Your task to perform on an android device: Do I have any events tomorrow? Image 0: 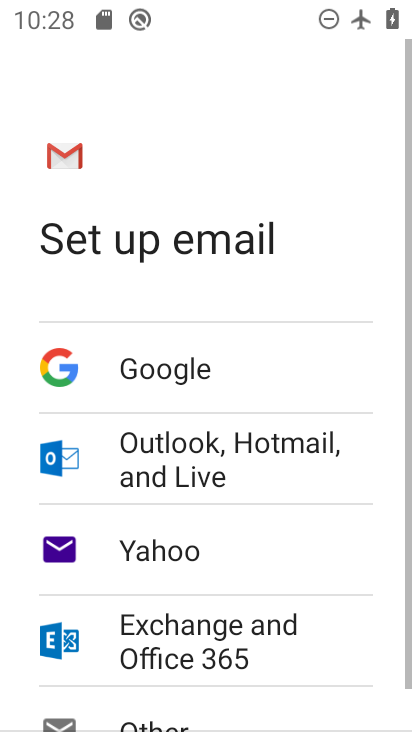
Step 0: press home button
Your task to perform on an android device: Do I have any events tomorrow? Image 1: 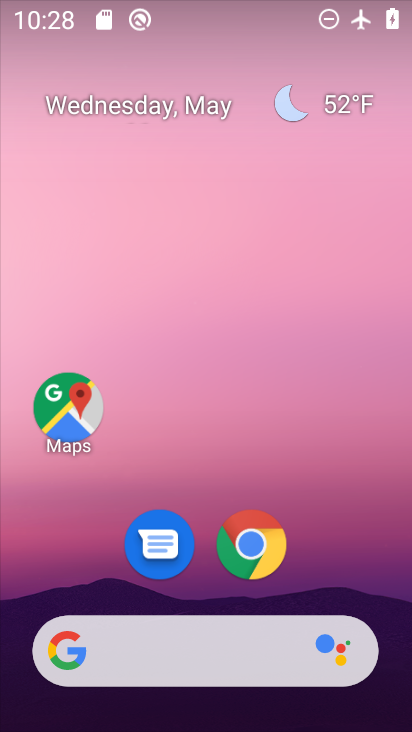
Step 1: click (179, 113)
Your task to perform on an android device: Do I have any events tomorrow? Image 2: 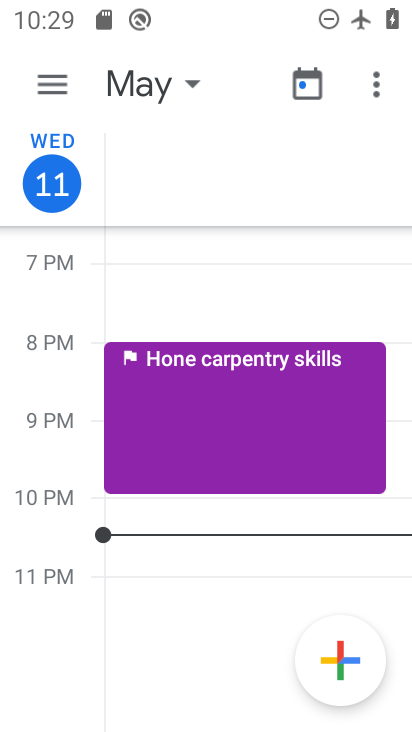
Step 2: click (58, 83)
Your task to perform on an android device: Do I have any events tomorrow? Image 3: 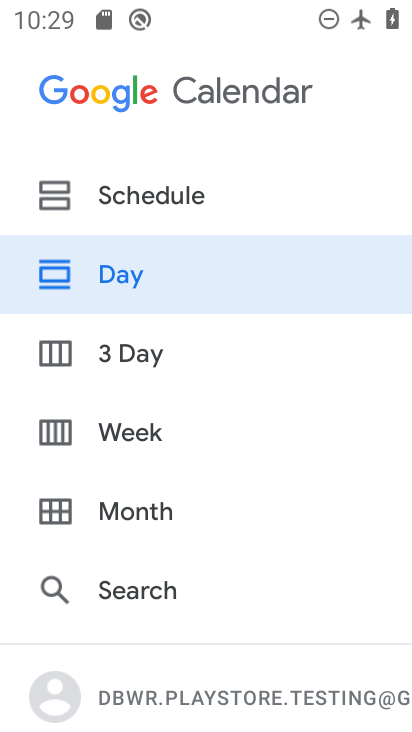
Step 3: drag from (261, 522) to (265, 11)
Your task to perform on an android device: Do I have any events tomorrow? Image 4: 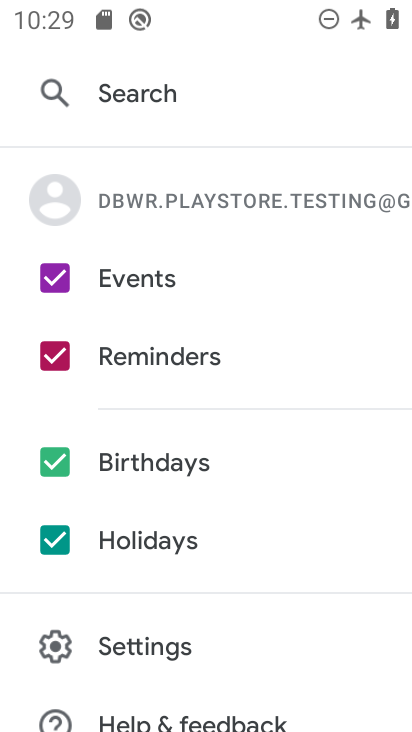
Step 4: drag from (228, 606) to (236, 363)
Your task to perform on an android device: Do I have any events tomorrow? Image 5: 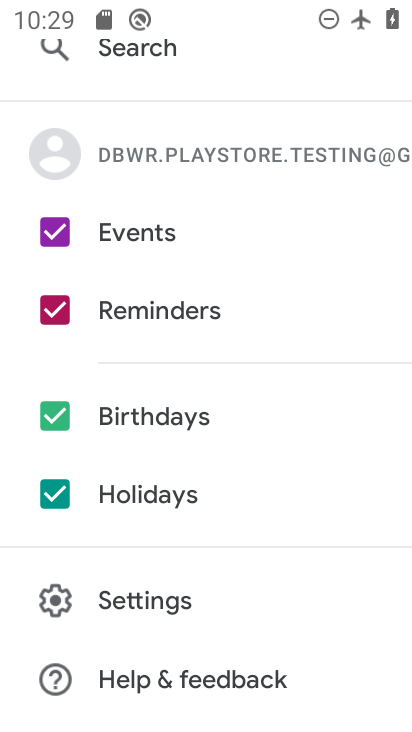
Step 5: click (55, 299)
Your task to perform on an android device: Do I have any events tomorrow? Image 6: 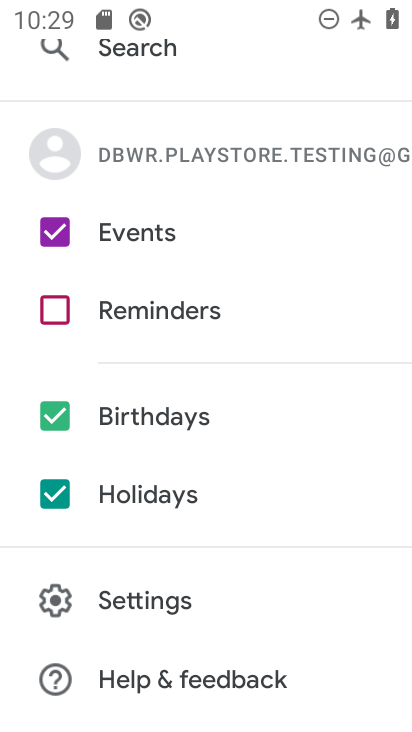
Step 6: click (57, 417)
Your task to perform on an android device: Do I have any events tomorrow? Image 7: 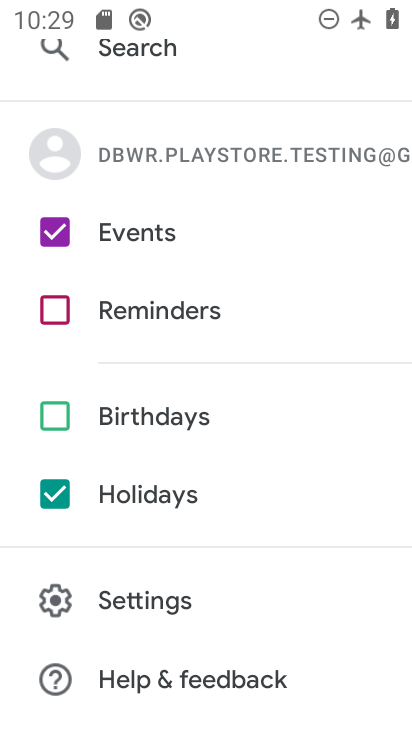
Step 7: click (56, 504)
Your task to perform on an android device: Do I have any events tomorrow? Image 8: 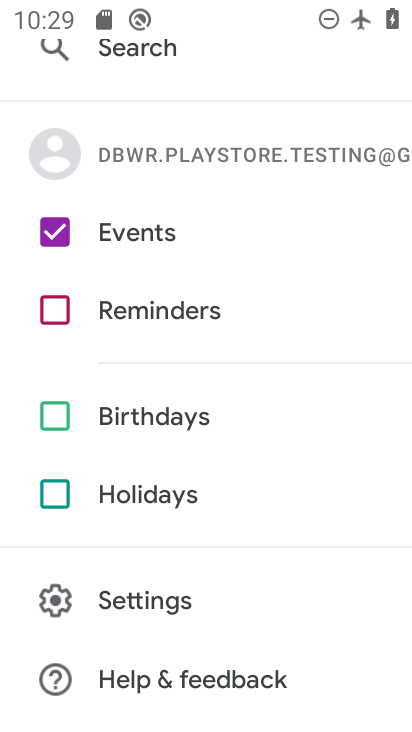
Step 8: drag from (227, 212) to (233, 703)
Your task to perform on an android device: Do I have any events tomorrow? Image 9: 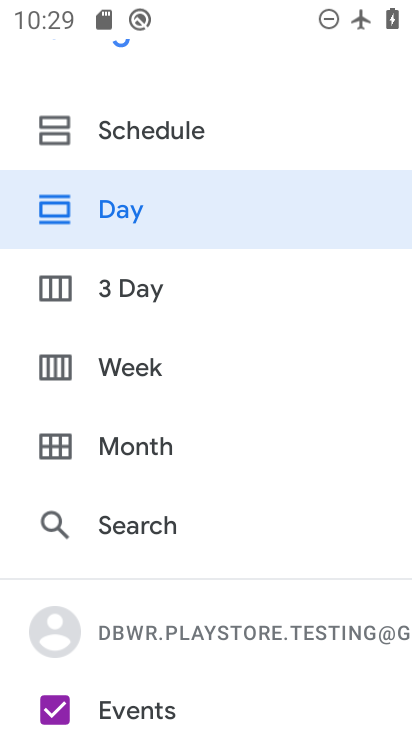
Step 9: drag from (192, 140) to (154, 602)
Your task to perform on an android device: Do I have any events tomorrow? Image 10: 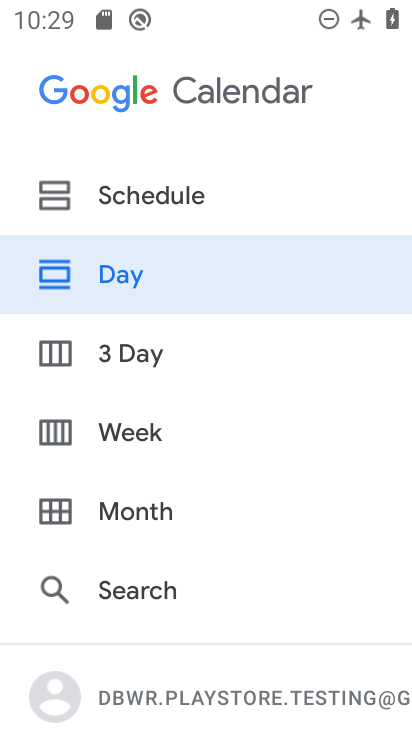
Step 10: press back button
Your task to perform on an android device: Do I have any events tomorrow? Image 11: 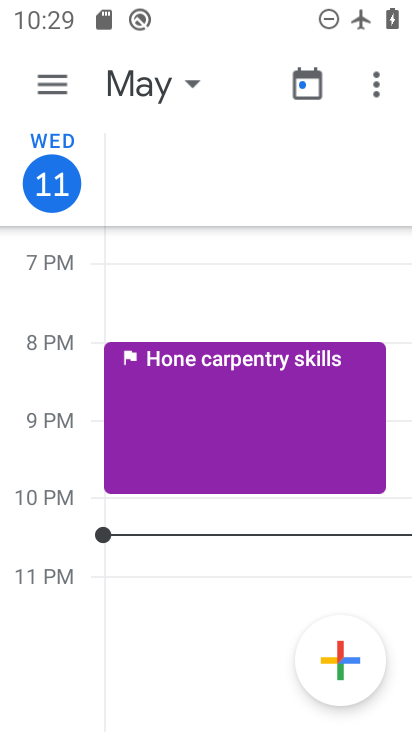
Step 11: click (191, 86)
Your task to perform on an android device: Do I have any events tomorrow? Image 12: 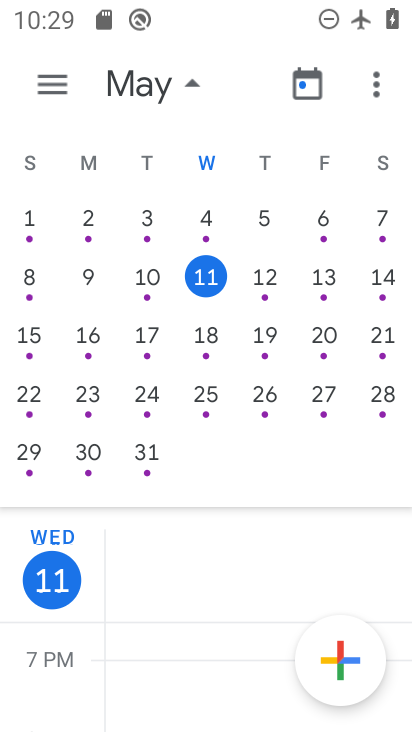
Step 12: click (278, 281)
Your task to perform on an android device: Do I have any events tomorrow? Image 13: 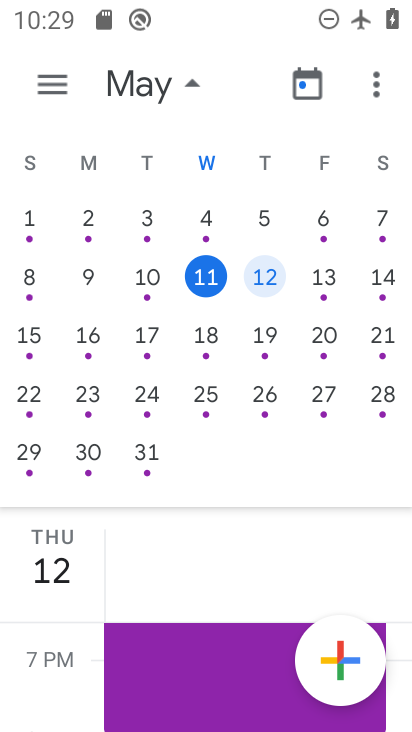
Step 13: click (173, 673)
Your task to perform on an android device: Do I have any events tomorrow? Image 14: 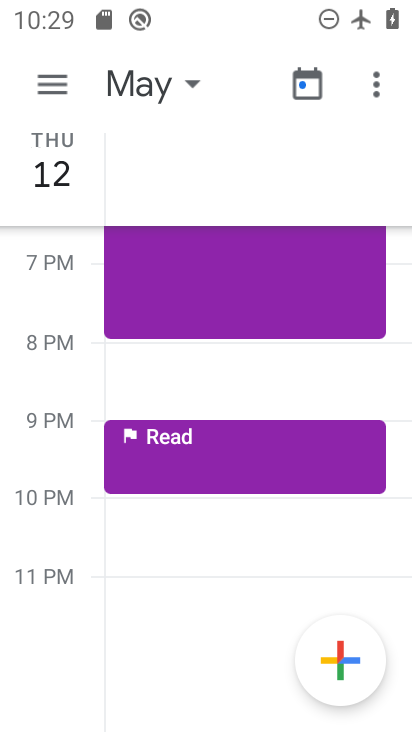
Step 14: task complete